Your task to perform on an android device: Go to notification settings Image 0: 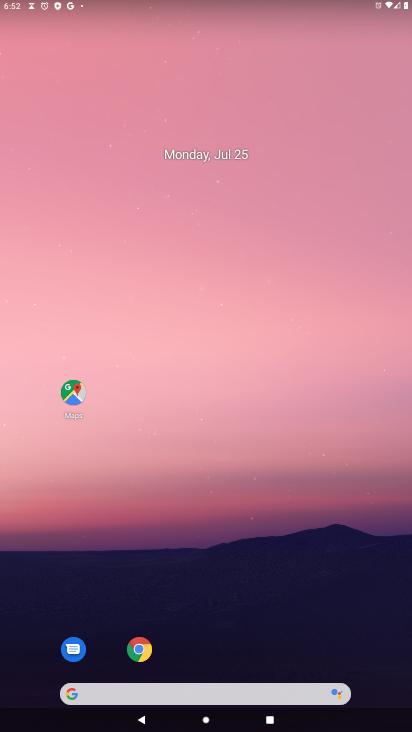
Step 0: drag from (193, 670) to (259, 2)
Your task to perform on an android device: Go to notification settings Image 1: 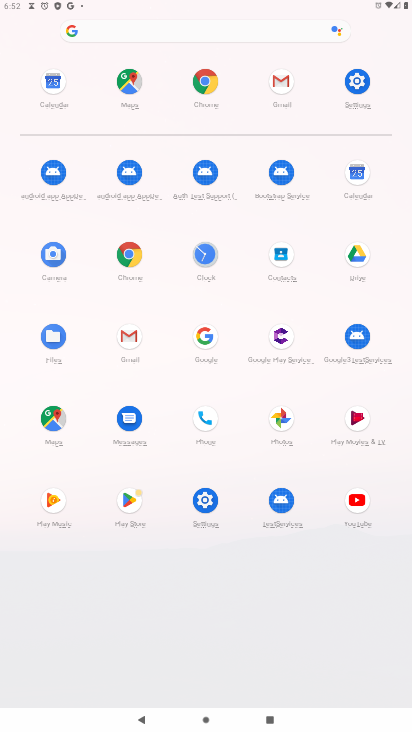
Step 1: click (357, 80)
Your task to perform on an android device: Go to notification settings Image 2: 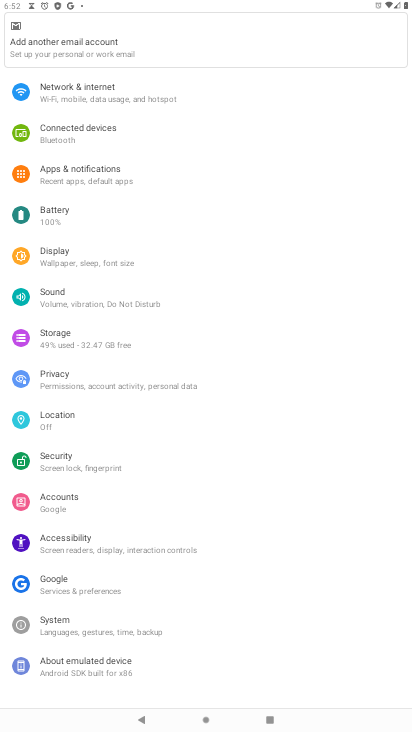
Step 2: click (100, 164)
Your task to perform on an android device: Go to notification settings Image 3: 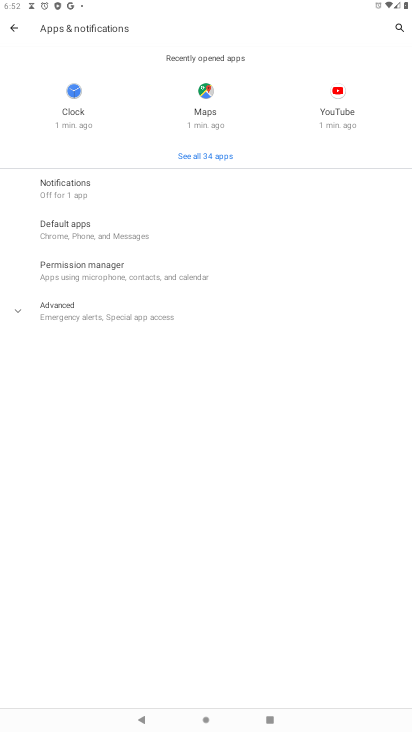
Step 3: task complete